Your task to perform on an android device: turn on the 24-hour format for clock Image 0: 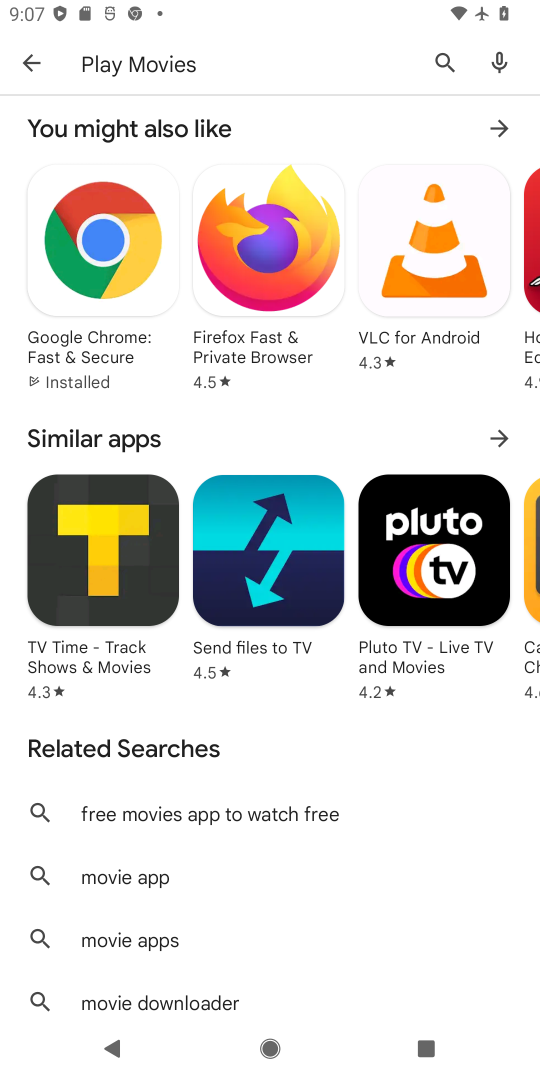
Step 0: press home button
Your task to perform on an android device: turn on the 24-hour format for clock Image 1: 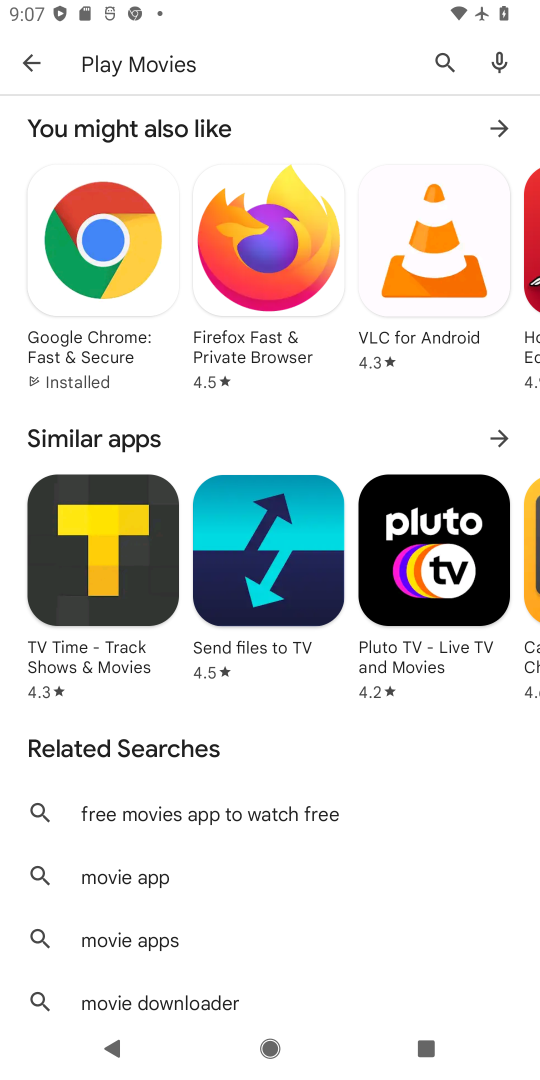
Step 1: press home button
Your task to perform on an android device: turn on the 24-hour format for clock Image 2: 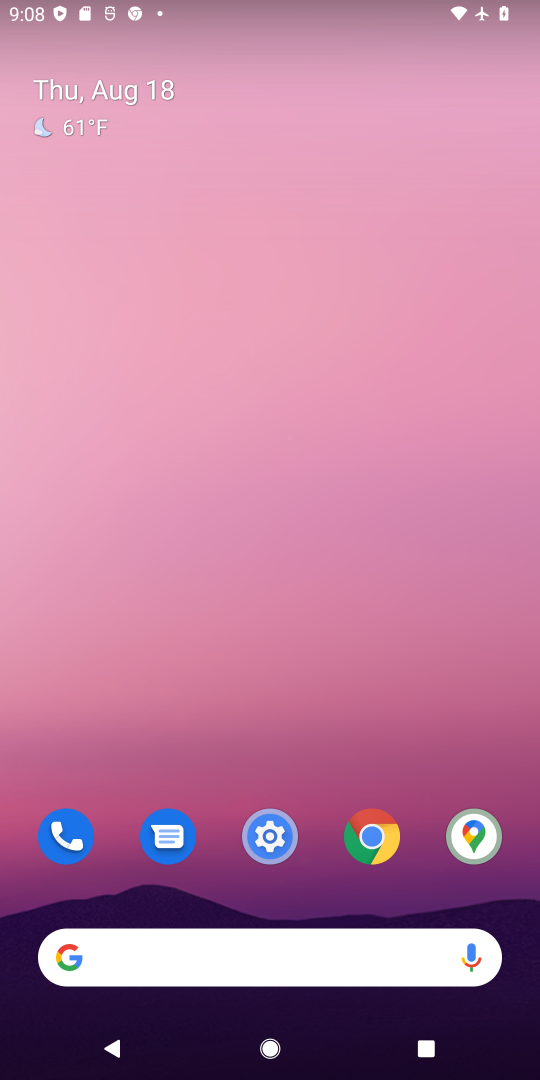
Step 2: drag from (346, 635) to (438, 19)
Your task to perform on an android device: turn on the 24-hour format for clock Image 3: 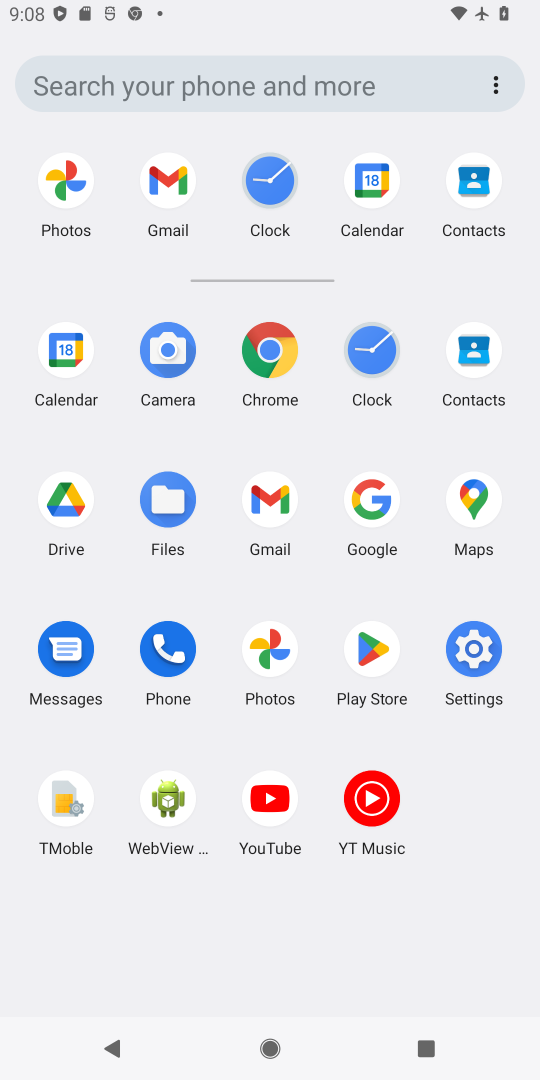
Step 3: click (377, 350)
Your task to perform on an android device: turn on the 24-hour format for clock Image 4: 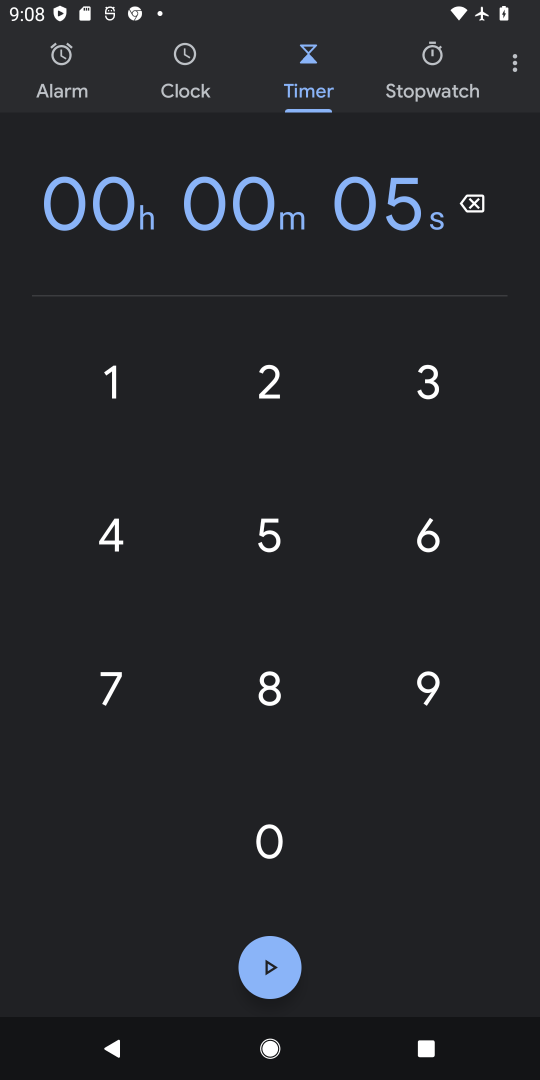
Step 4: click (518, 59)
Your task to perform on an android device: turn on the 24-hour format for clock Image 5: 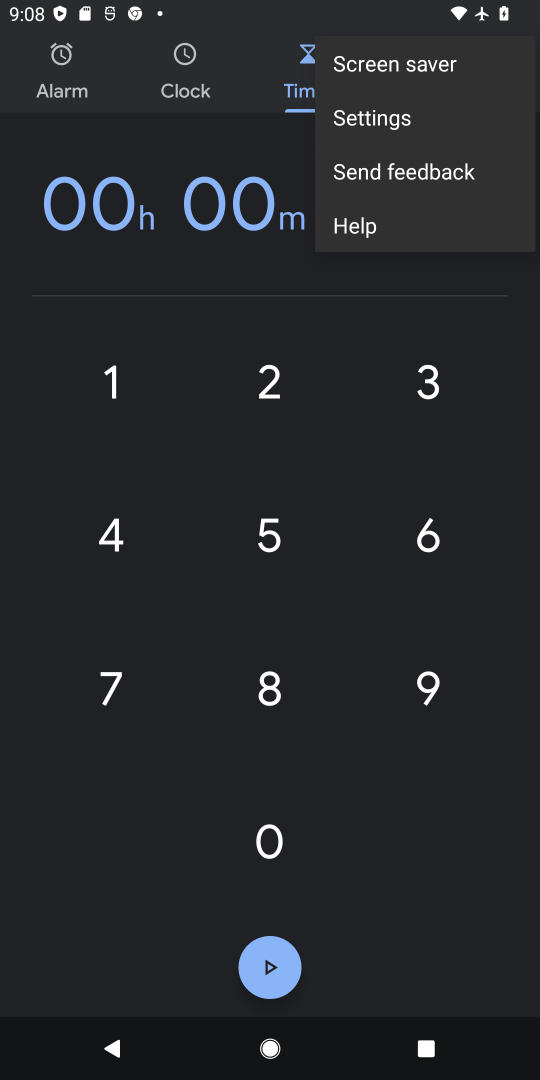
Step 5: click (394, 121)
Your task to perform on an android device: turn on the 24-hour format for clock Image 6: 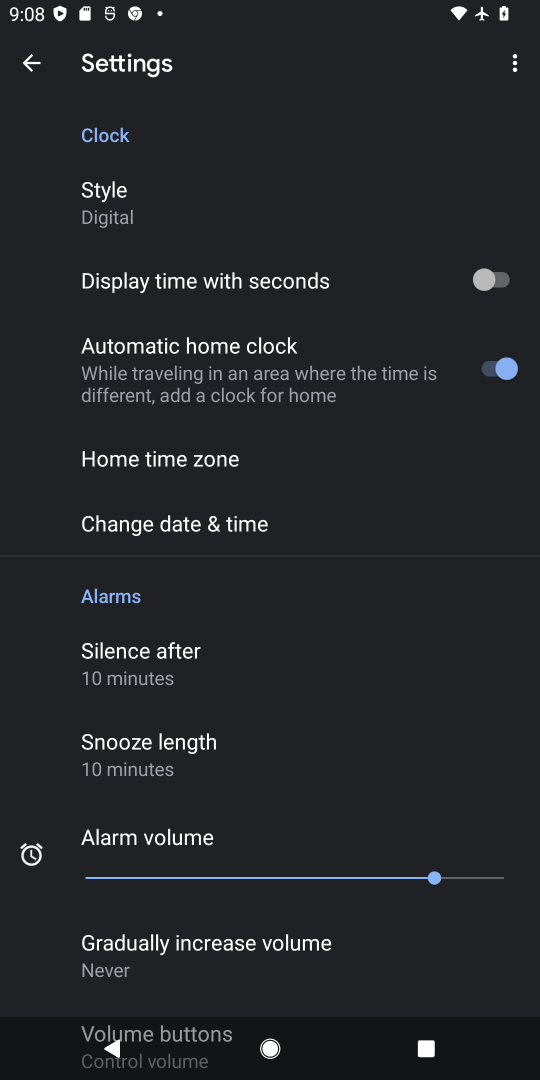
Step 6: click (258, 521)
Your task to perform on an android device: turn on the 24-hour format for clock Image 7: 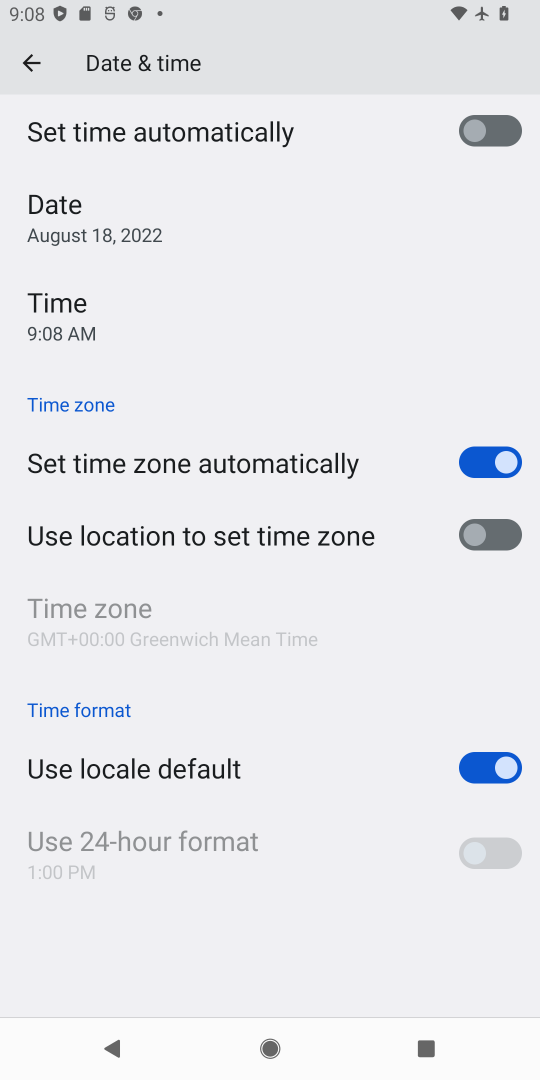
Step 7: click (496, 759)
Your task to perform on an android device: turn on the 24-hour format for clock Image 8: 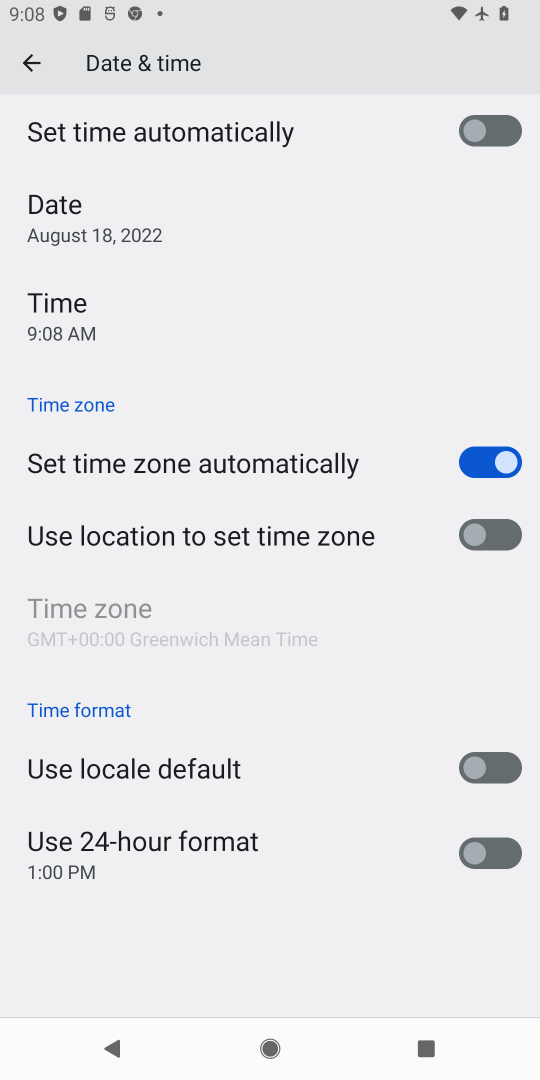
Step 8: click (499, 868)
Your task to perform on an android device: turn on the 24-hour format for clock Image 9: 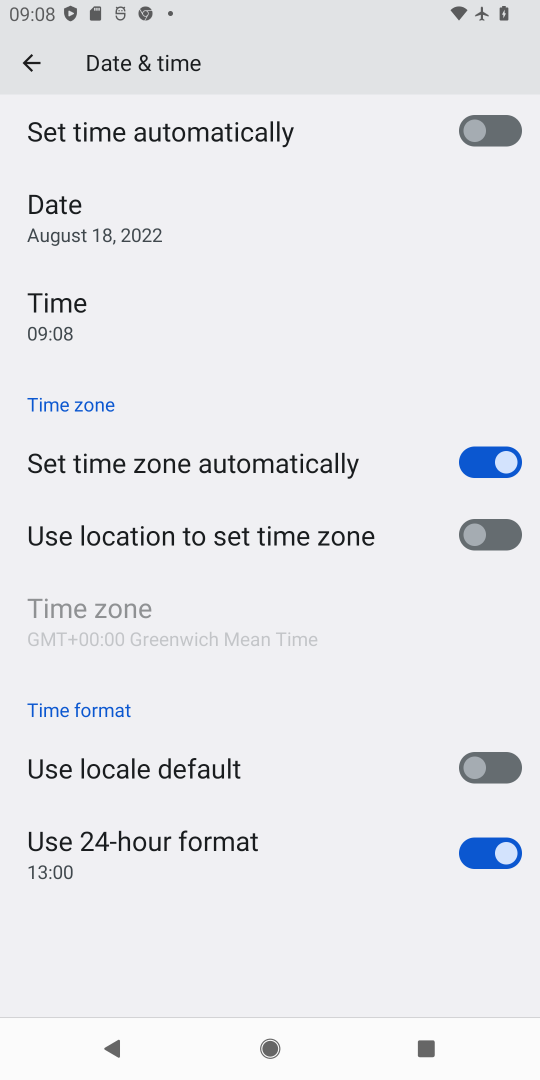
Step 9: task complete